Your task to perform on an android device: Open ESPN.com Image 0: 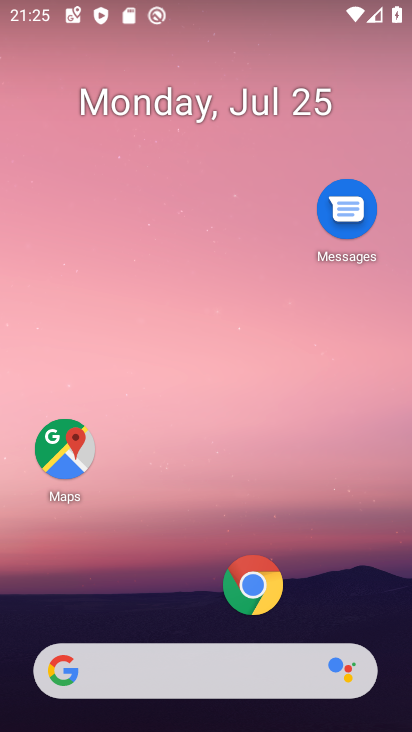
Step 0: click (249, 586)
Your task to perform on an android device: Open ESPN.com Image 1: 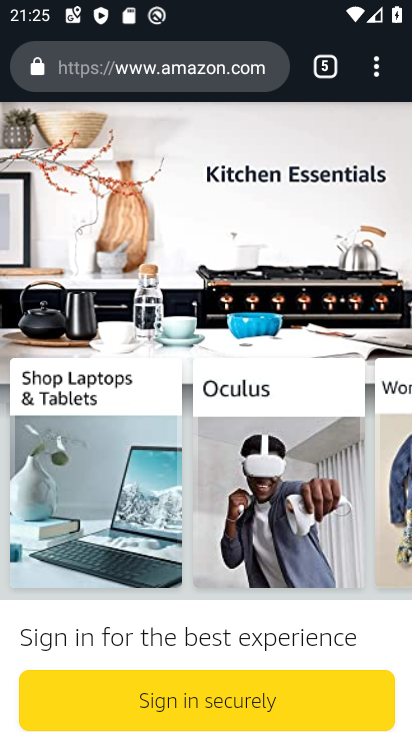
Step 1: drag from (374, 69) to (179, 132)
Your task to perform on an android device: Open ESPN.com Image 2: 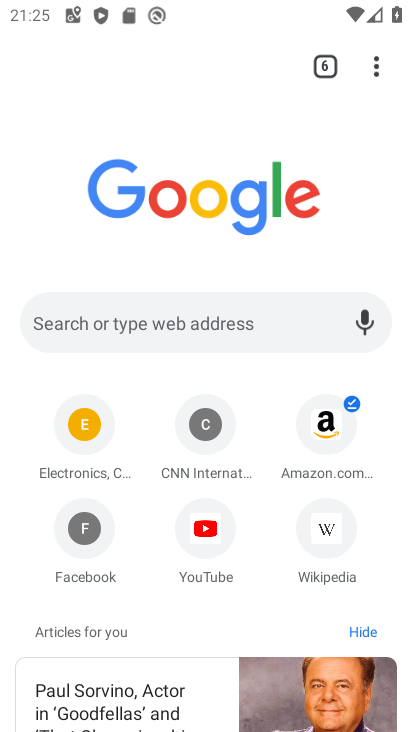
Step 2: click (145, 318)
Your task to perform on an android device: Open ESPN.com Image 3: 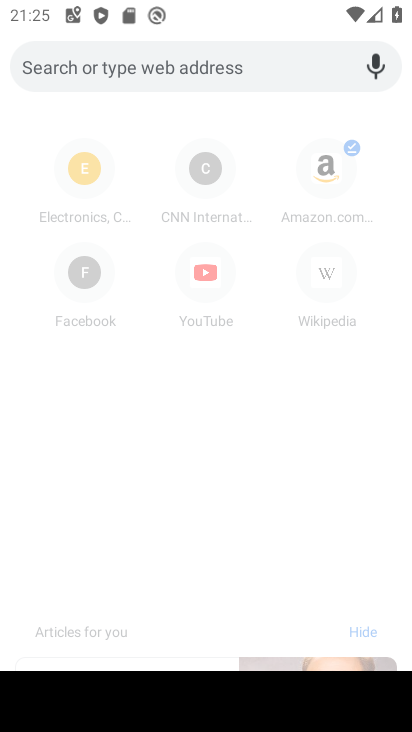
Step 3: type "espn.com"
Your task to perform on an android device: Open ESPN.com Image 4: 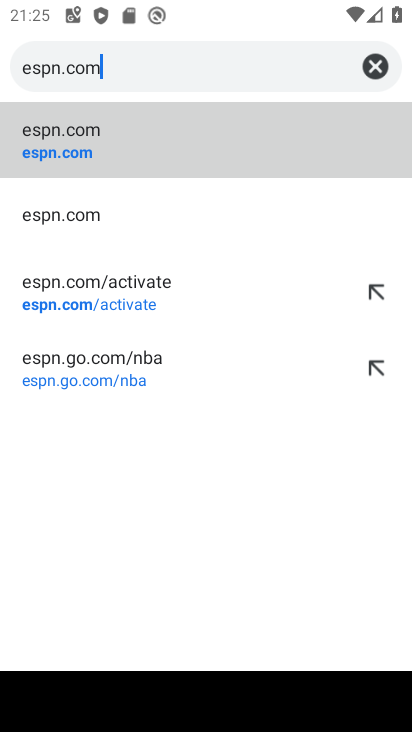
Step 4: click (46, 146)
Your task to perform on an android device: Open ESPN.com Image 5: 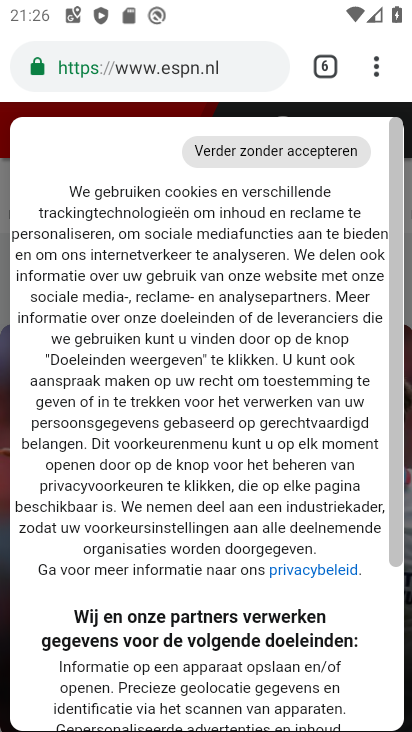
Step 5: drag from (169, 547) to (370, 118)
Your task to perform on an android device: Open ESPN.com Image 6: 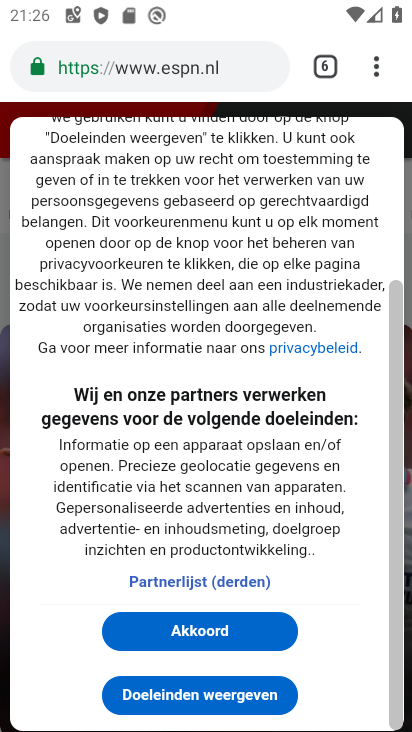
Step 6: click (217, 622)
Your task to perform on an android device: Open ESPN.com Image 7: 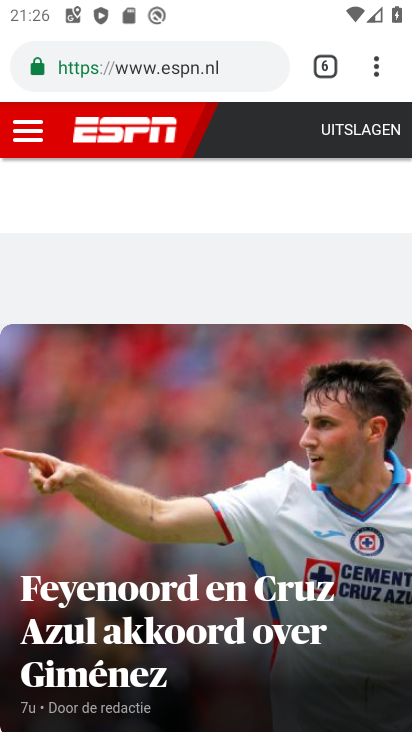
Step 7: task complete